Your task to perform on an android device: Go to location settings Image 0: 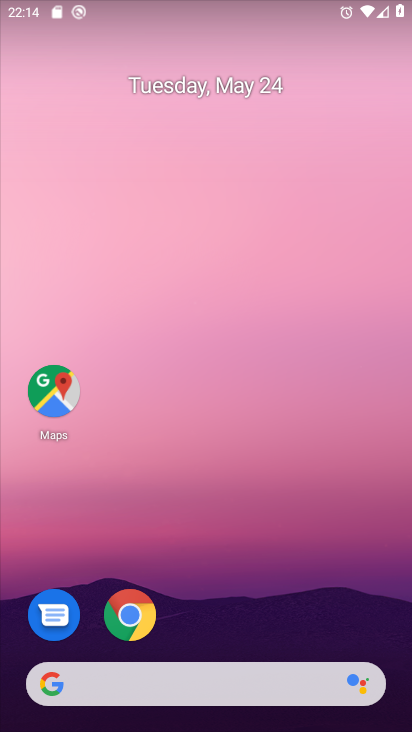
Step 0: drag from (212, 542) to (252, 185)
Your task to perform on an android device: Go to location settings Image 1: 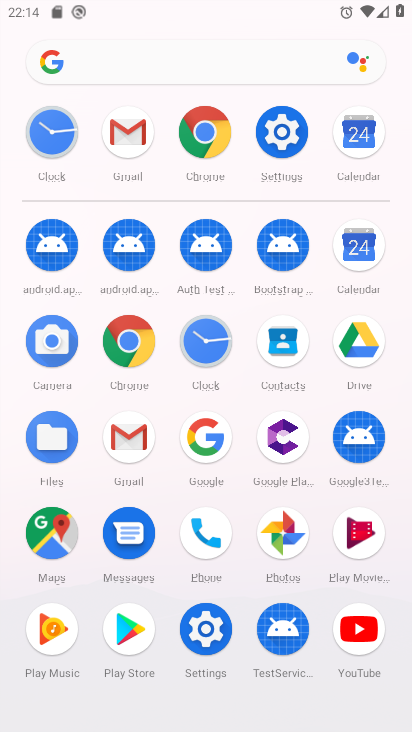
Step 1: click (278, 117)
Your task to perform on an android device: Go to location settings Image 2: 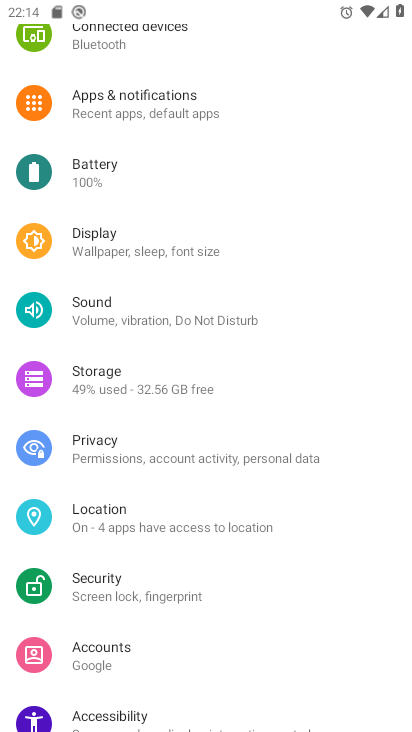
Step 2: click (142, 508)
Your task to perform on an android device: Go to location settings Image 3: 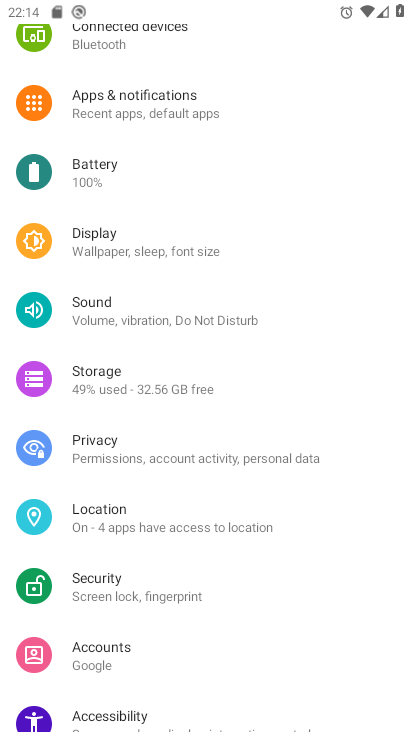
Step 3: click (141, 524)
Your task to perform on an android device: Go to location settings Image 4: 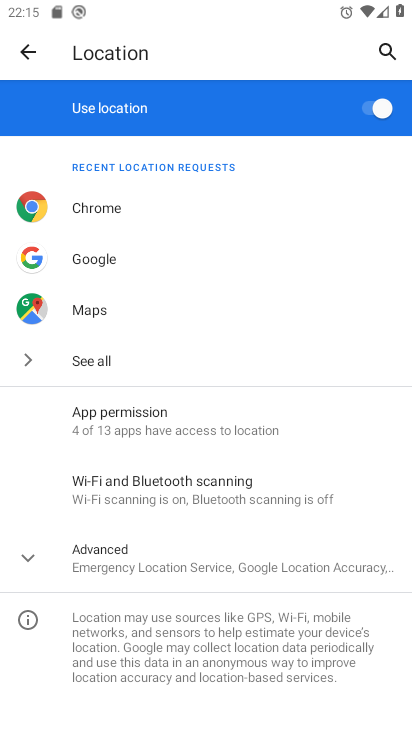
Step 4: task complete